Your task to perform on an android device: turn on sleep mode Image 0: 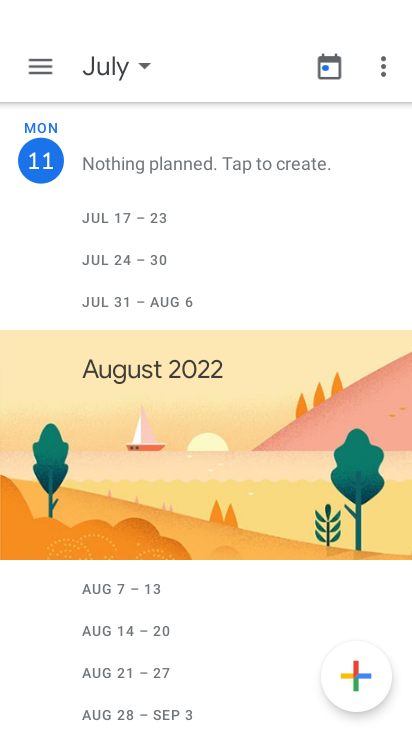
Step 0: press home button
Your task to perform on an android device: turn on sleep mode Image 1: 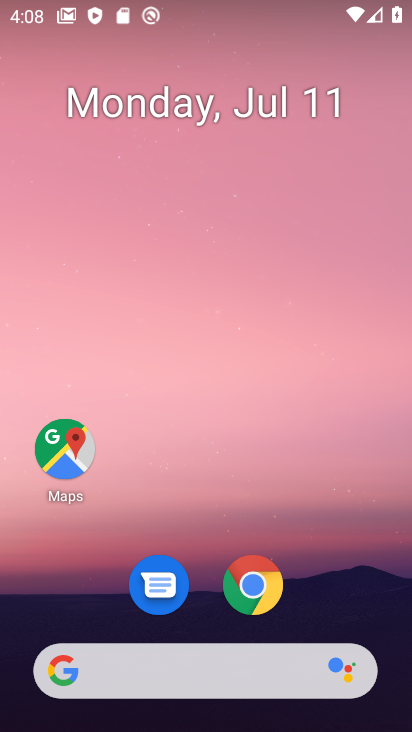
Step 1: drag from (263, 476) to (296, 5)
Your task to perform on an android device: turn on sleep mode Image 2: 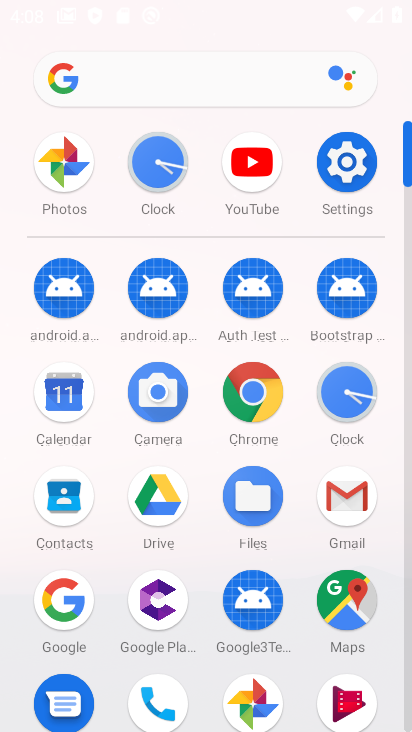
Step 2: click (346, 160)
Your task to perform on an android device: turn on sleep mode Image 3: 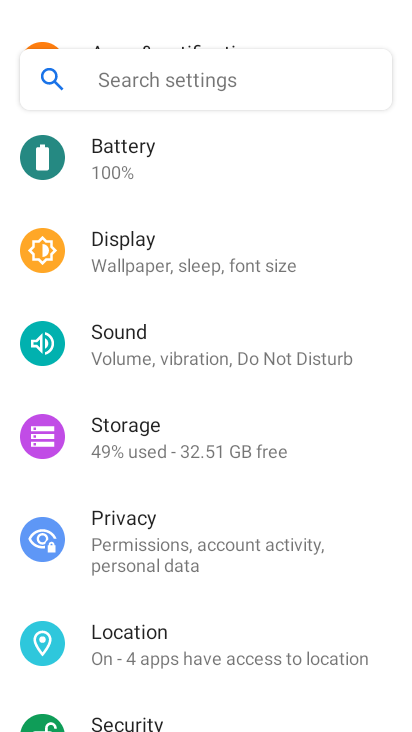
Step 3: click (195, 259)
Your task to perform on an android device: turn on sleep mode Image 4: 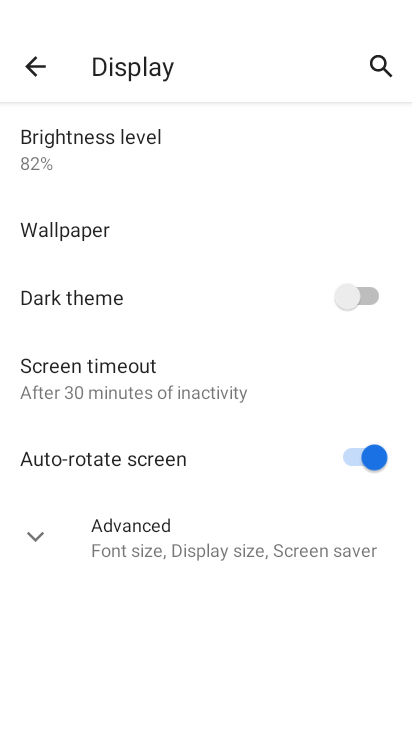
Step 4: click (38, 533)
Your task to perform on an android device: turn on sleep mode Image 5: 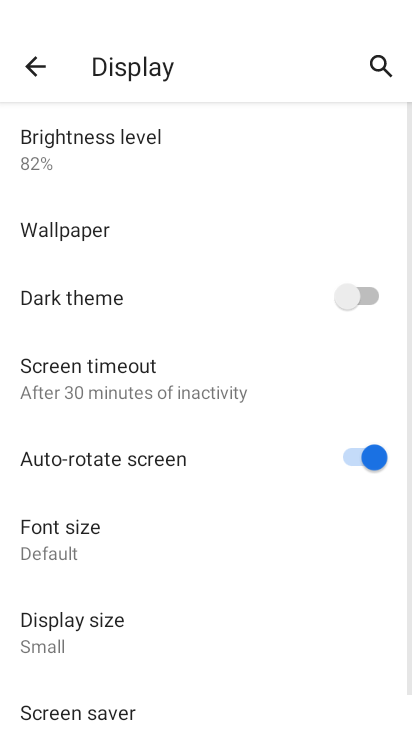
Step 5: task complete